Your task to perform on an android device: open app "DuckDuckGo Privacy Browser" (install if not already installed) Image 0: 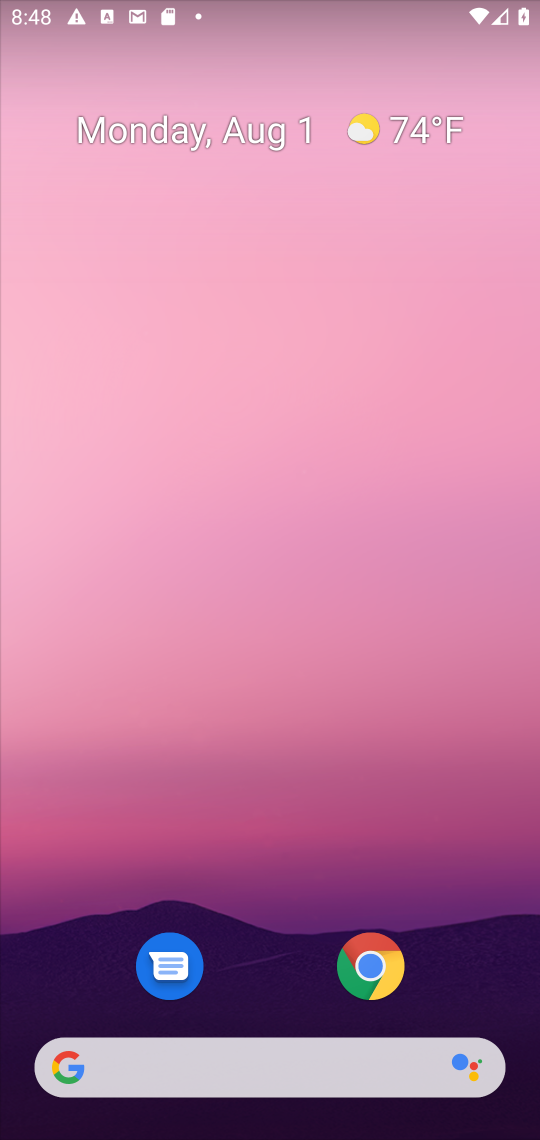
Step 0: drag from (534, 869) to (452, 156)
Your task to perform on an android device: open app "DuckDuckGo Privacy Browser" (install if not already installed) Image 1: 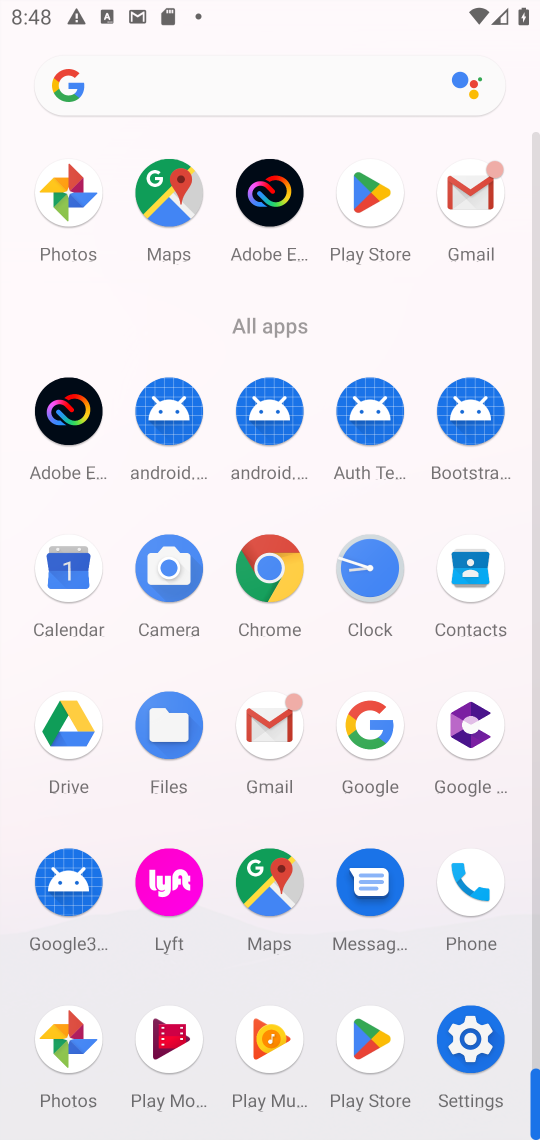
Step 1: click (366, 201)
Your task to perform on an android device: open app "DuckDuckGo Privacy Browser" (install if not already installed) Image 2: 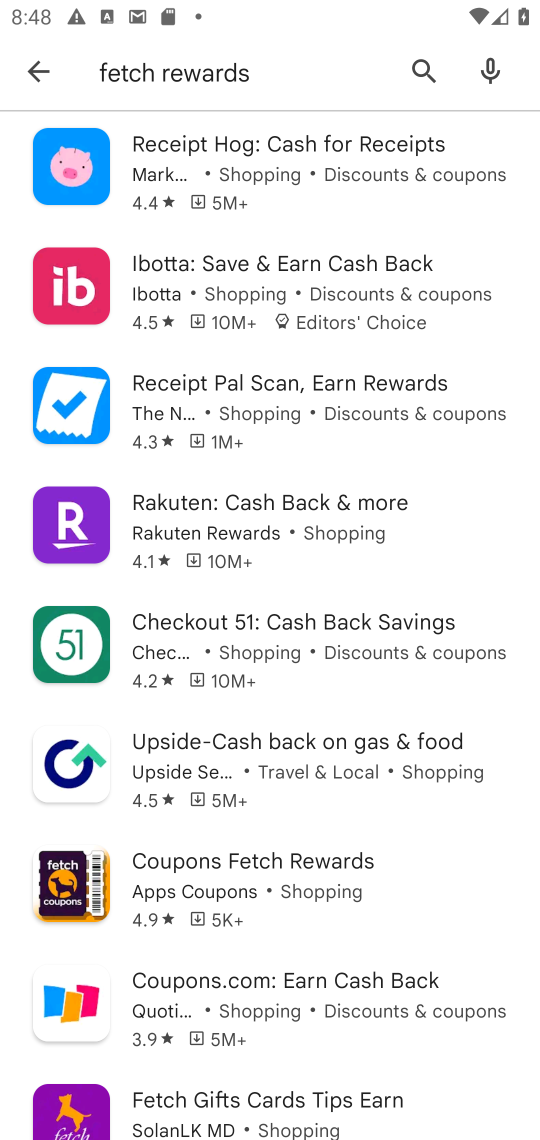
Step 2: click (426, 68)
Your task to perform on an android device: open app "DuckDuckGo Privacy Browser" (install if not already installed) Image 3: 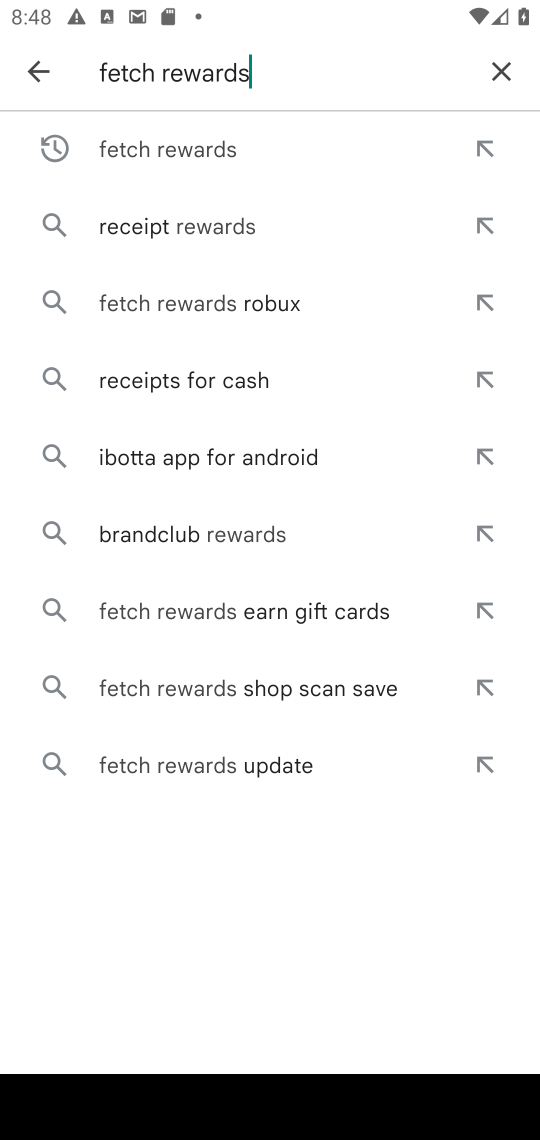
Step 3: click (499, 73)
Your task to perform on an android device: open app "DuckDuckGo Privacy Browser" (install if not already installed) Image 4: 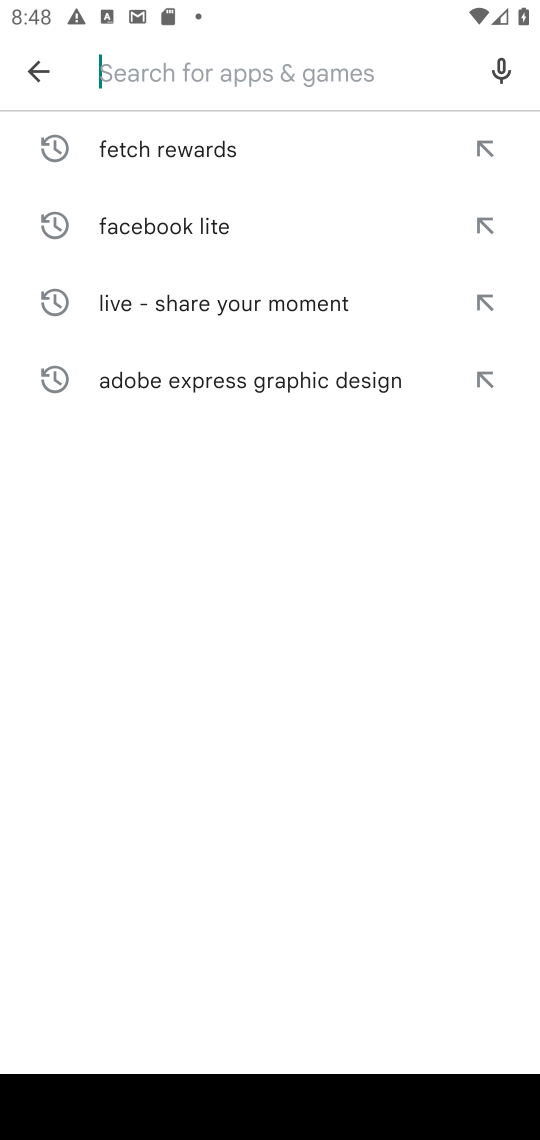
Step 4: type "DuckDuckGo Privacy Browser"
Your task to perform on an android device: open app "DuckDuckGo Privacy Browser" (install if not already installed) Image 5: 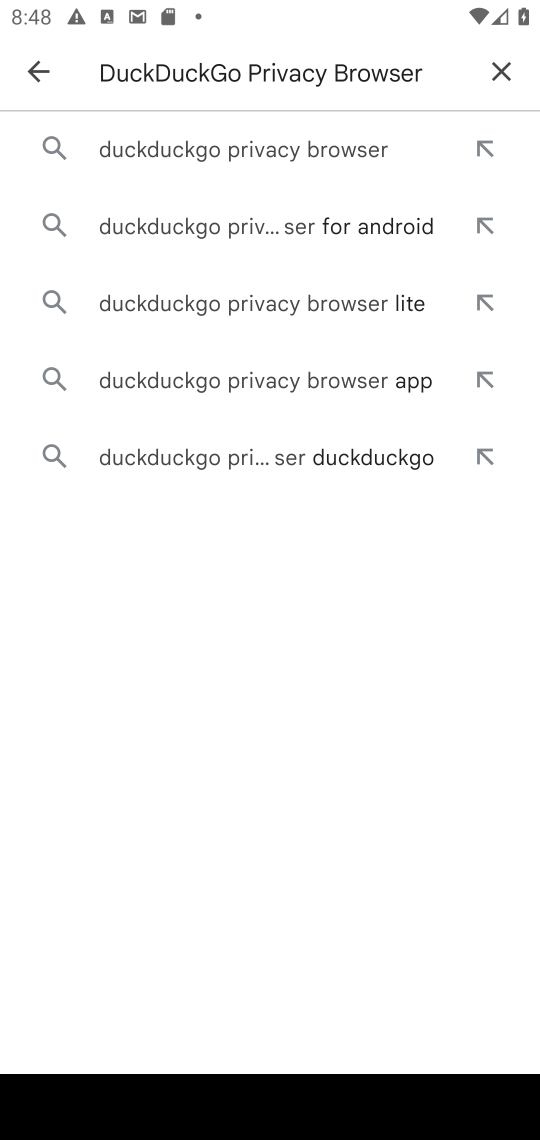
Step 5: click (310, 142)
Your task to perform on an android device: open app "DuckDuckGo Privacy Browser" (install if not already installed) Image 6: 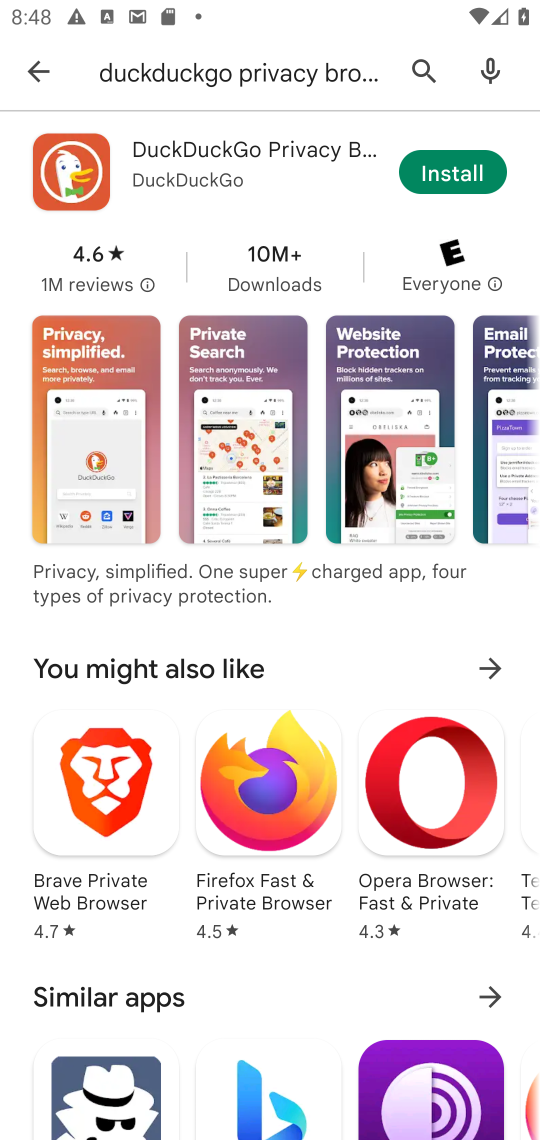
Step 6: click (478, 173)
Your task to perform on an android device: open app "DuckDuckGo Privacy Browser" (install if not already installed) Image 7: 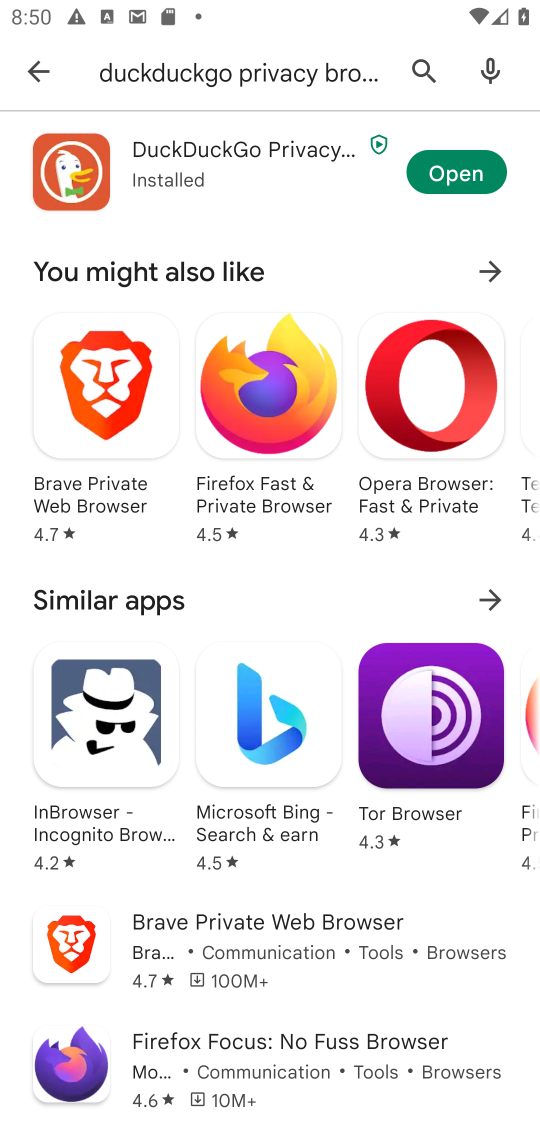
Step 7: click (448, 172)
Your task to perform on an android device: open app "DuckDuckGo Privacy Browser" (install if not already installed) Image 8: 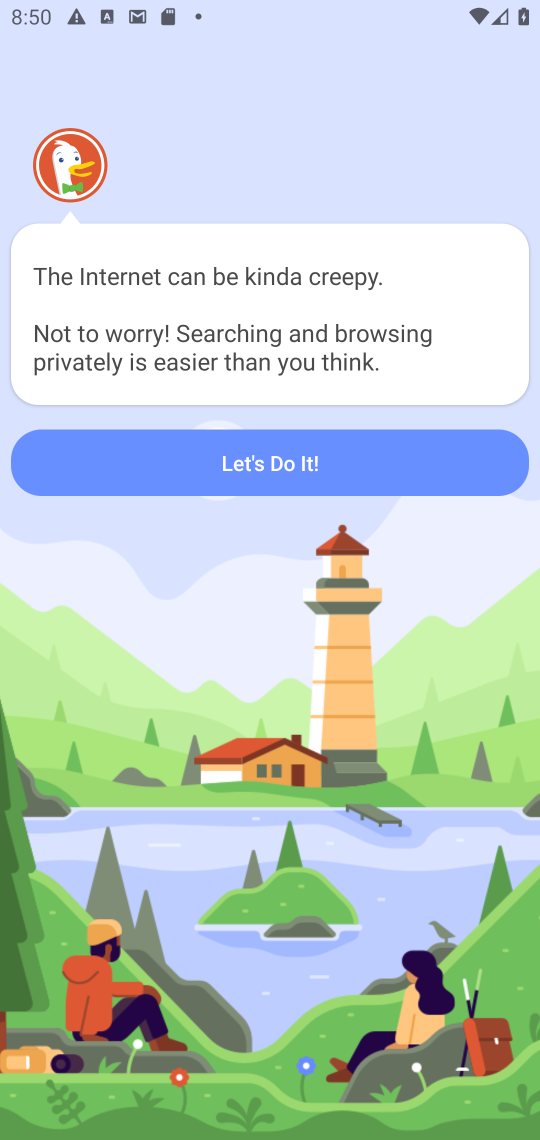
Step 8: task complete